Your task to perform on an android device: change the clock display to digital Image 0: 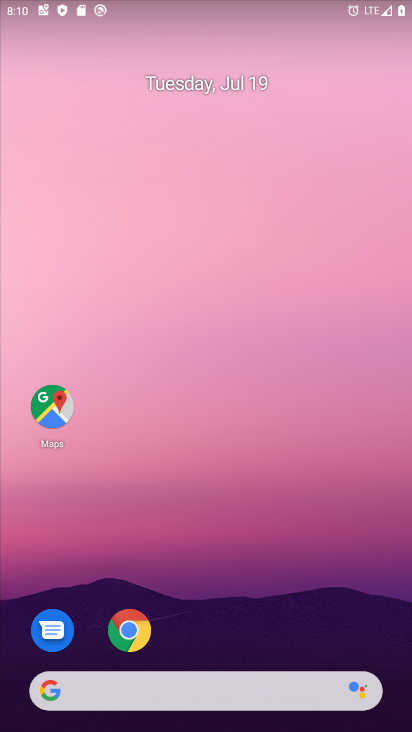
Step 0: drag from (292, 617) to (271, 30)
Your task to perform on an android device: change the clock display to digital Image 1: 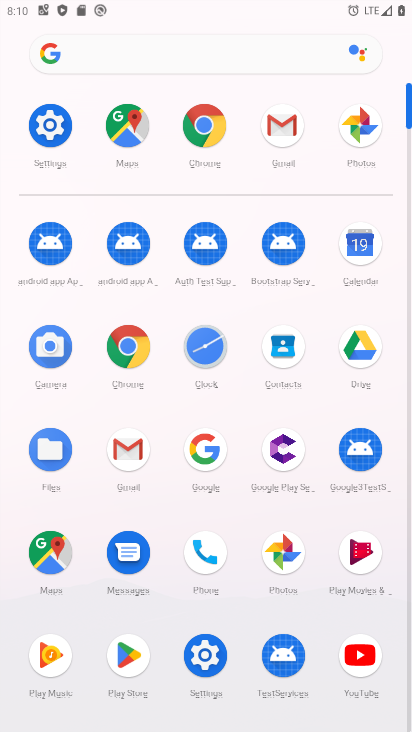
Step 1: click (200, 347)
Your task to perform on an android device: change the clock display to digital Image 2: 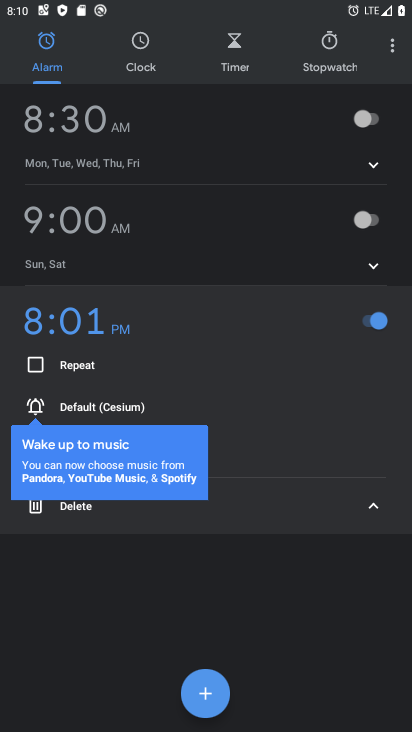
Step 2: click (393, 43)
Your task to perform on an android device: change the clock display to digital Image 3: 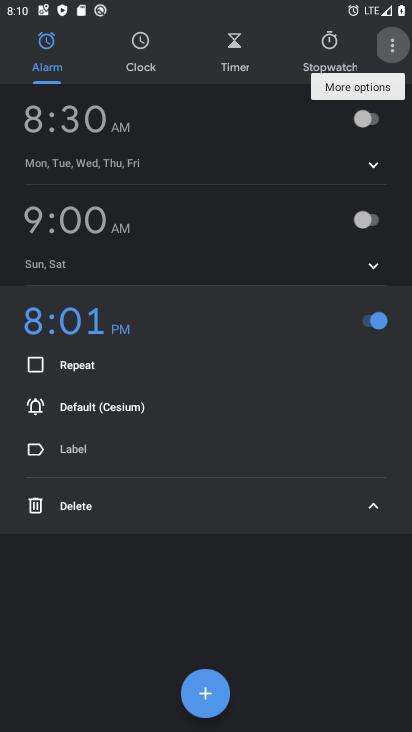
Step 3: click (394, 42)
Your task to perform on an android device: change the clock display to digital Image 4: 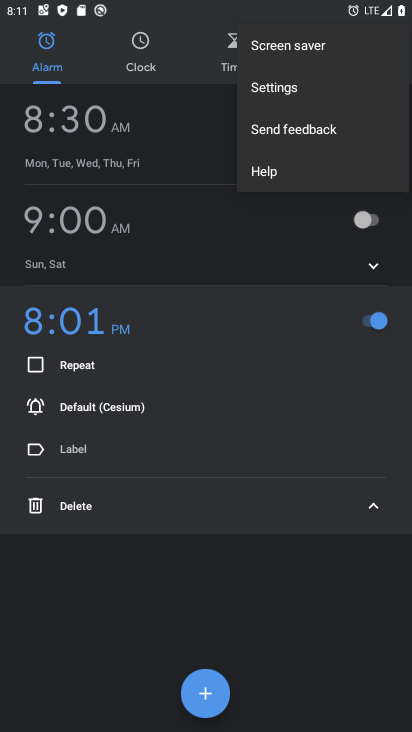
Step 4: click (282, 90)
Your task to perform on an android device: change the clock display to digital Image 5: 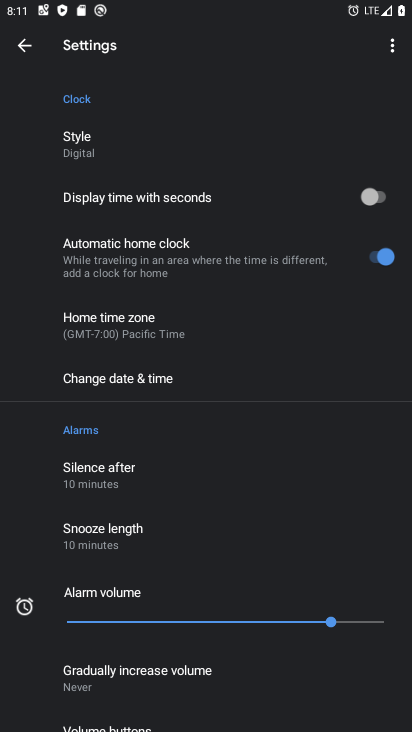
Step 5: task complete